Your task to perform on an android device: turn off smart reply in the gmail app Image 0: 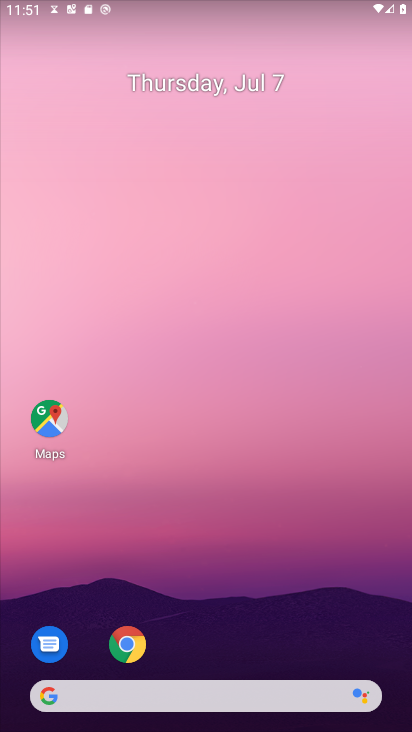
Step 0: press home button
Your task to perform on an android device: turn off smart reply in the gmail app Image 1: 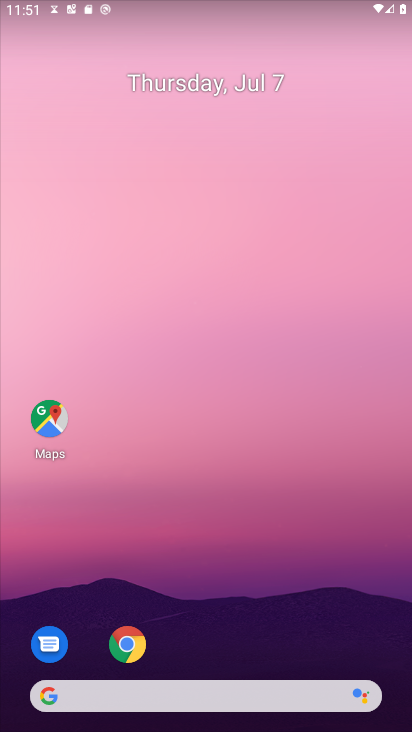
Step 1: drag from (289, 572) to (229, 115)
Your task to perform on an android device: turn off smart reply in the gmail app Image 2: 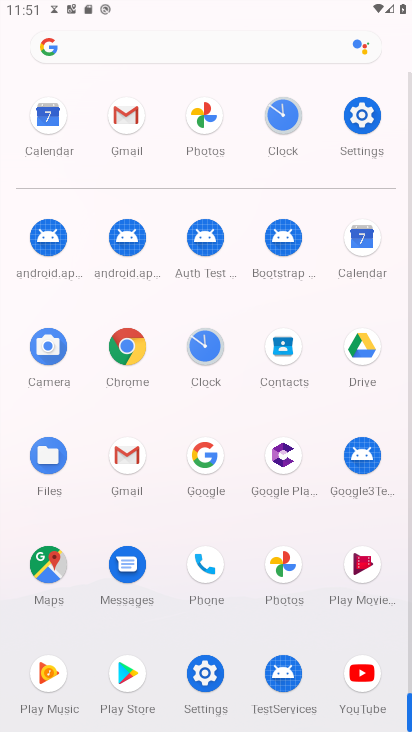
Step 2: click (115, 103)
Your task to perform on an android device: turn off smart reply in the gmail app Image 3: 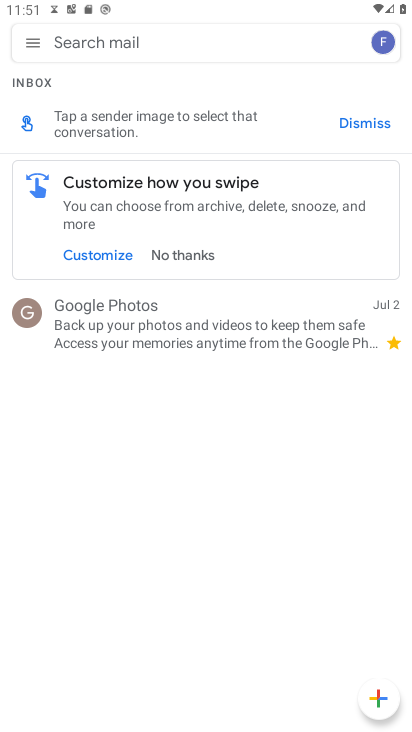
Step 3: click (26, 42)
Your task to perform on an android device: turn off smart reply in the gmail app Image 4: 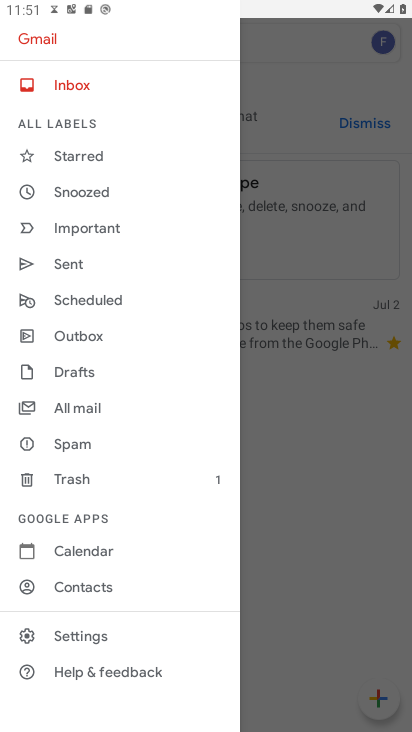
Step 4: click (72, 630)
Your task to perform on an android device: turn off smart reply in the gmail app Image 5: 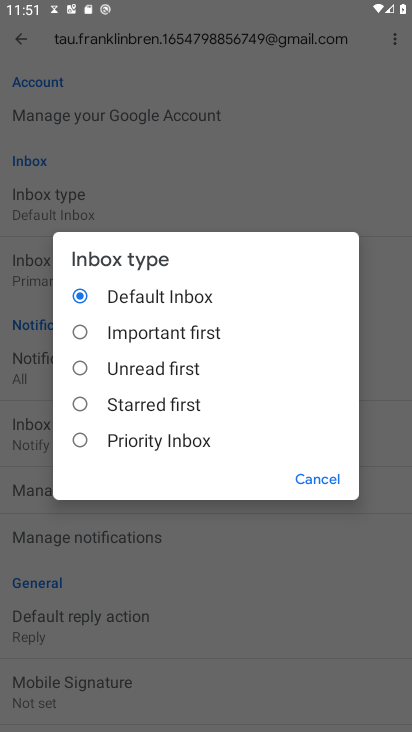
Step 5: click (323, 476)
Your task to perform on an android device: turn off smart reply in the gmail app Image 6: 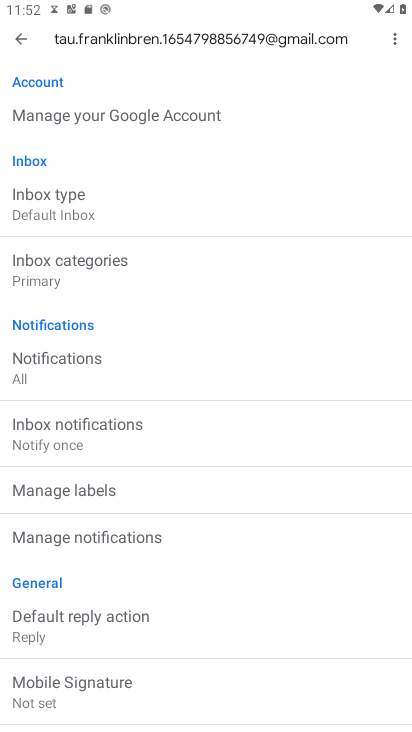
Step 6: drag from (277, 683) to (237, 260)
Your task to perform on an android device: turn off smart reply in the gmail app Image 7: 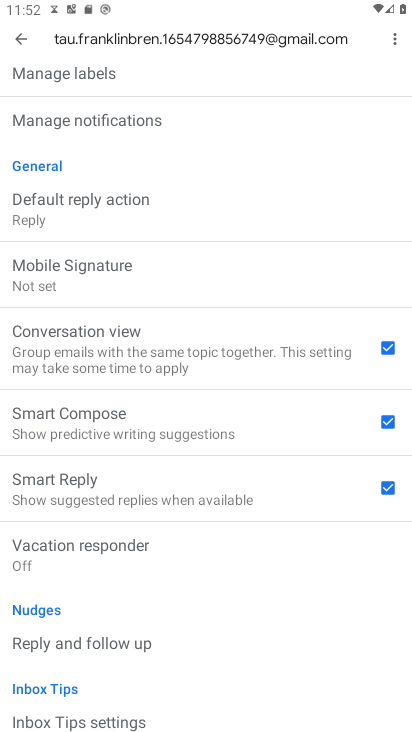
Step 7: click (383, 498)
Your task to perform on an android device: turn off smart reply in the gmail app Image 8: 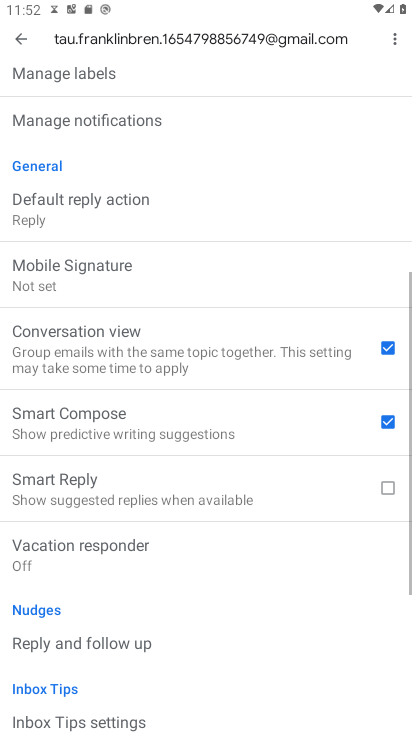
Step 8: task complete